Your task to perform on an android device: Go to eBay Image 0: 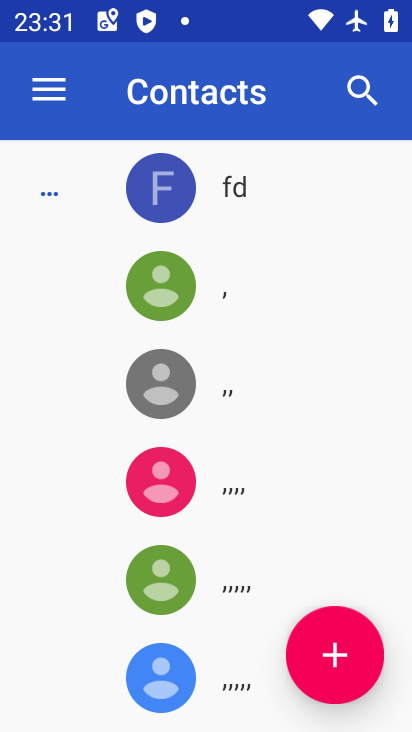
Step 0: press home button
Your task to perform on an android device: Go to eBay Image 1: 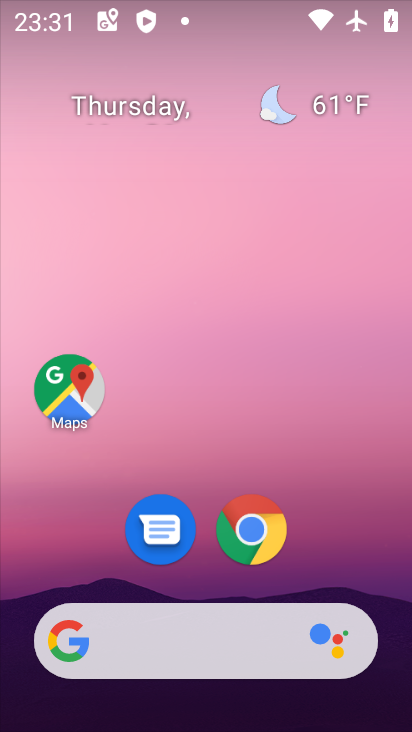
Step 1: click (248, 643)
Your task to perform on an android device: Go to eBay Image 2: 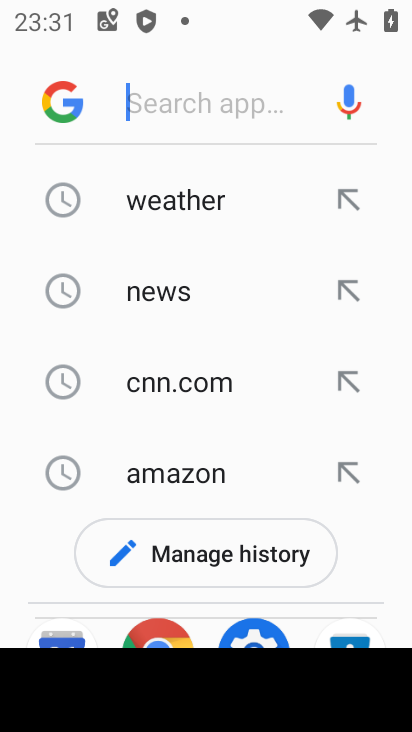
Step 2: type "ebay.com"
Your task to perform on an android device: Go to eBay Image 3: 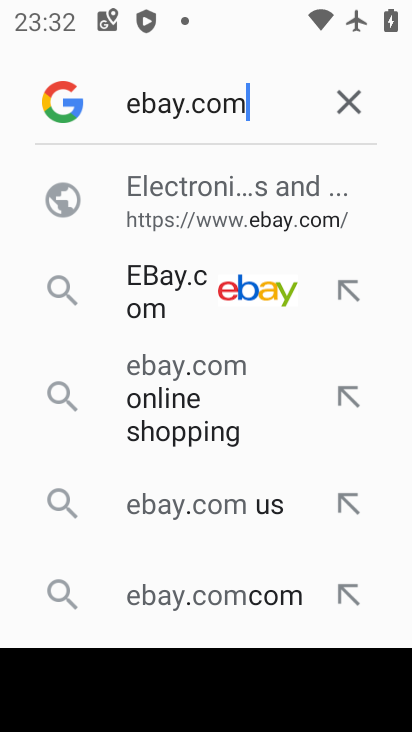
Step 3: click (217, 205)
Your task to perform on an android device: Go to eBay Image 4: 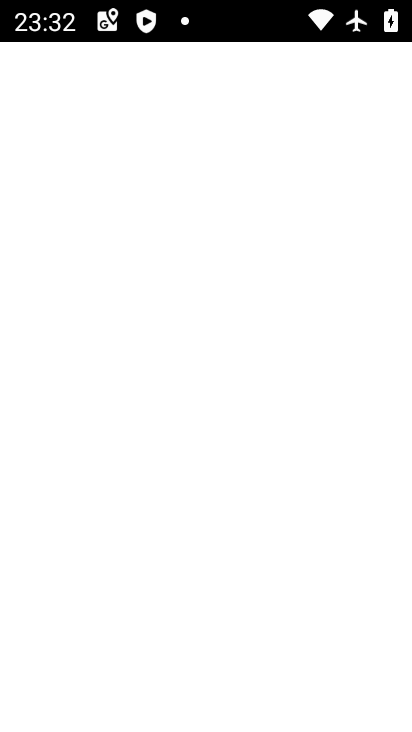
Step 4: task complete